Your task to perform on an android device: snooze an email in the gmail app Image 0: 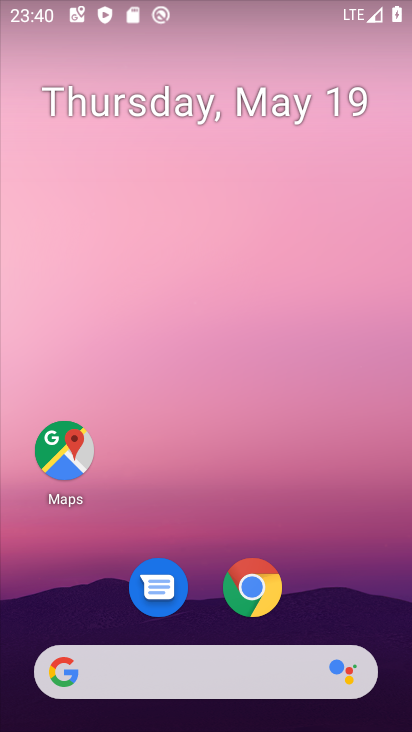
Step 0: drag from (280, 707) to (229, 277)
Your task to perform on an android device: snooze an email in the gmail app Image 1: 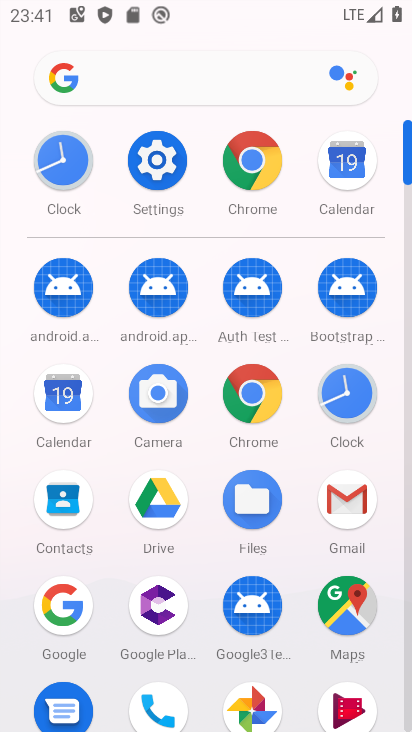
Step 1: click (346, 492)
Your task to perform on an android device: snooze an email in the gmail app Image 2: 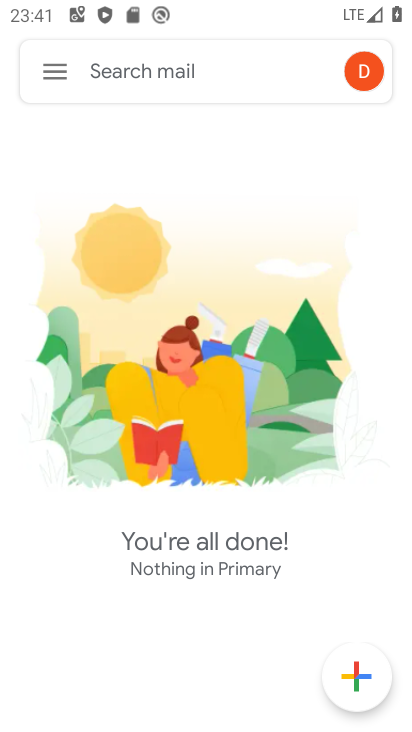
Step 2: click (57, 79)
Your task to perform on an android device: snooze an email in the gmail app Image 3: 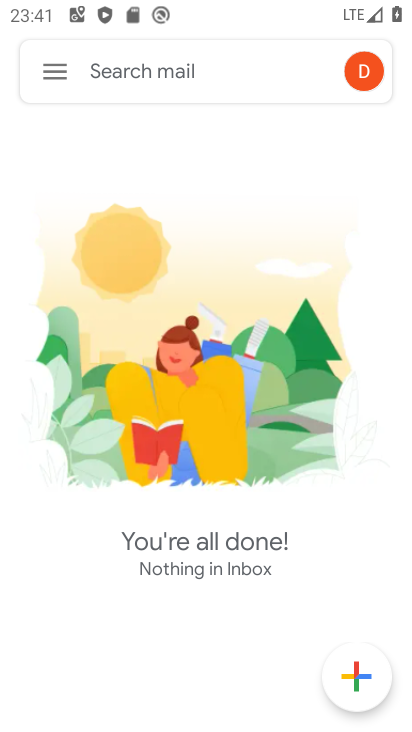
Step 3: click (56, 63)
Your task to perform on an android device: snooze an email in the gmail app Image 4: 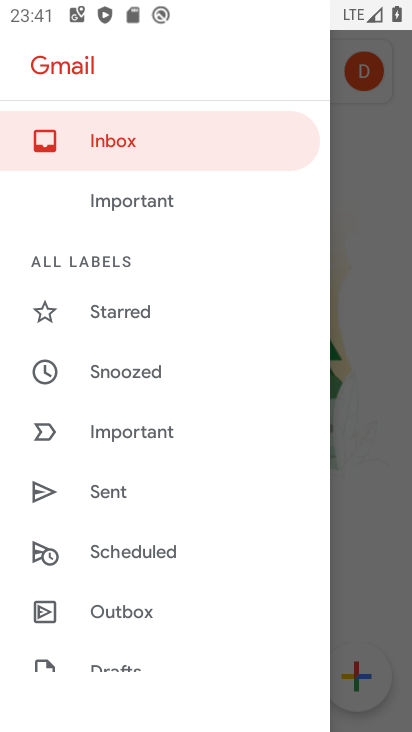
Step 4: click (117, 375)
Your task to perform on an android device: snooze an email in the gmail app Image 5: 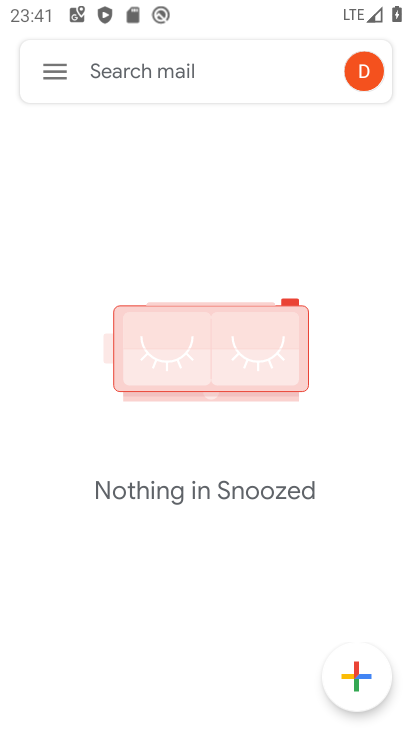
Step 5: task complete